Your task to perform on an android device: open chrome privacy settings Image 0: 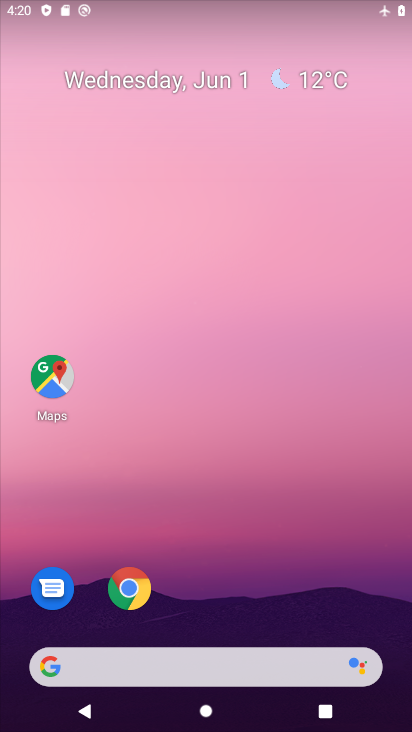
Step 0: drag from (314, 566) to (289, 10)
Your task to perform on an android device: open chrome privacy settings Image 1: 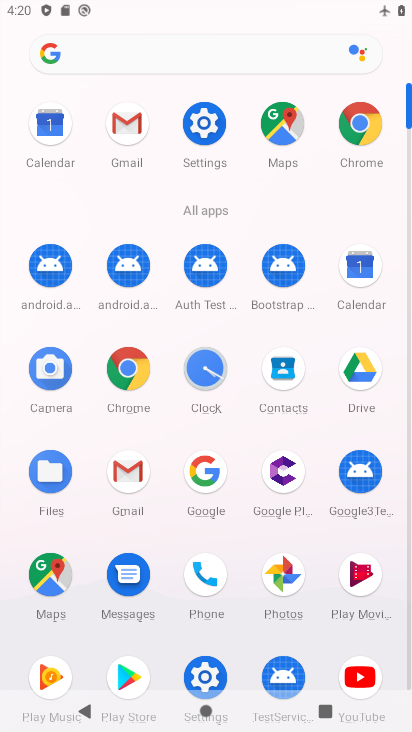
Step 1: click (354, 118)
Your task to perform on an android device: open chrome privacy settings Image 2: 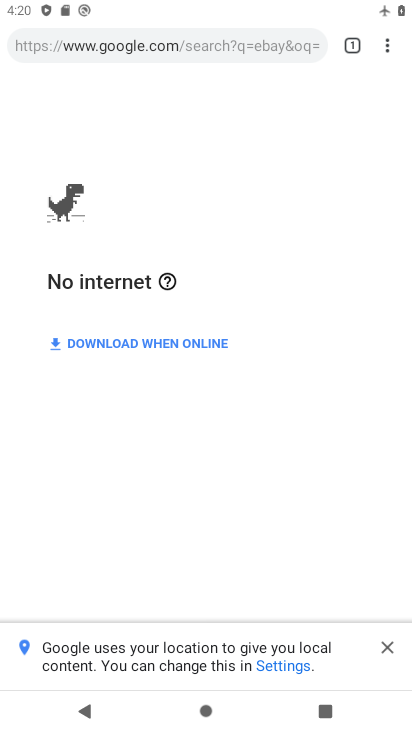
Step 2: drag from (394, 39) to (266, 516)
Your task to perform on an android device: open chrome privacy settings Image 3: 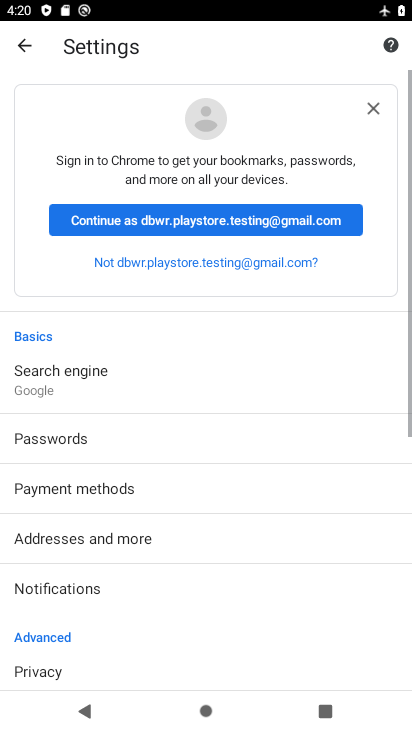
Step 3: drag from (215, 568) to (195, 181)
Your task to perform on an android device: open chrome privacy settings Image 4: 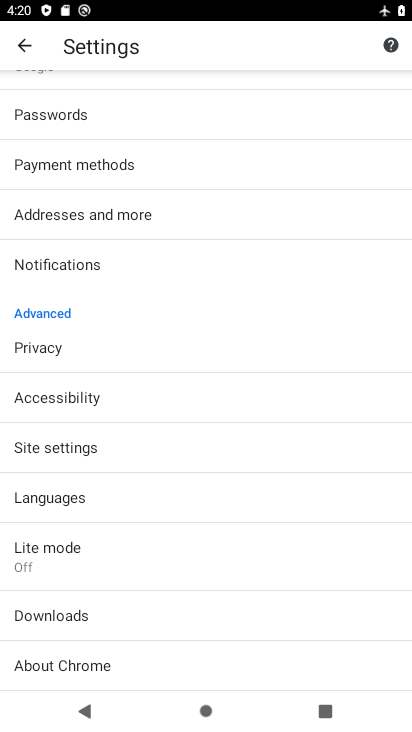
Step 4: click (51, 350)
Your task to perform on an android device: open chrome privacy settings Image 5: 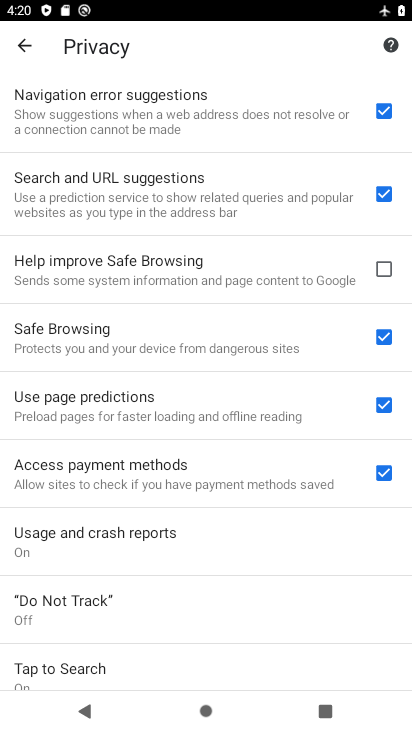
Step 5: task complete